Your task to perform on an android device: change notifications settings Image 0: 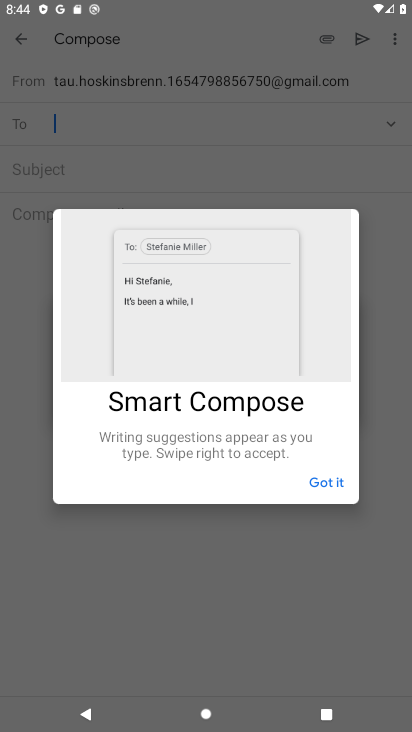
Step 0: press home button
Your task to perform on an android device: change notifications settings Image 1: 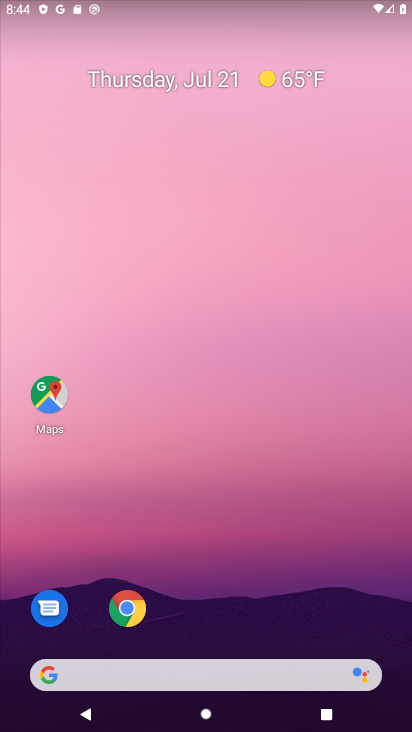
Step 1: drag from (269, 545) to (217, 274)
Your task to perform on an android device: change notifications settings Image 2: 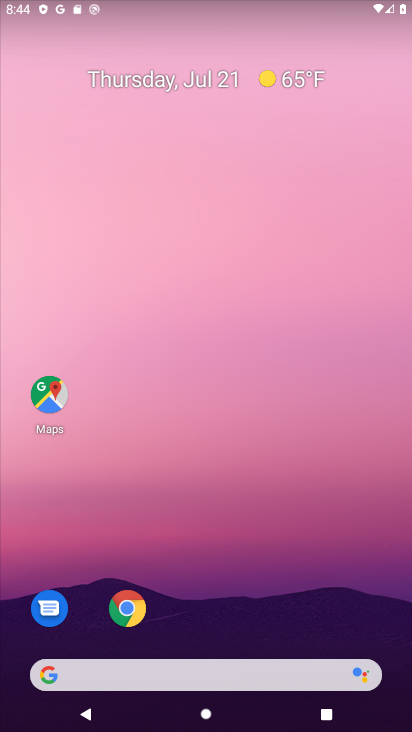
Step 2: drag from (267, 557) to (190, 281)
Your task to perform on an android device: change notifications settings Image 3: 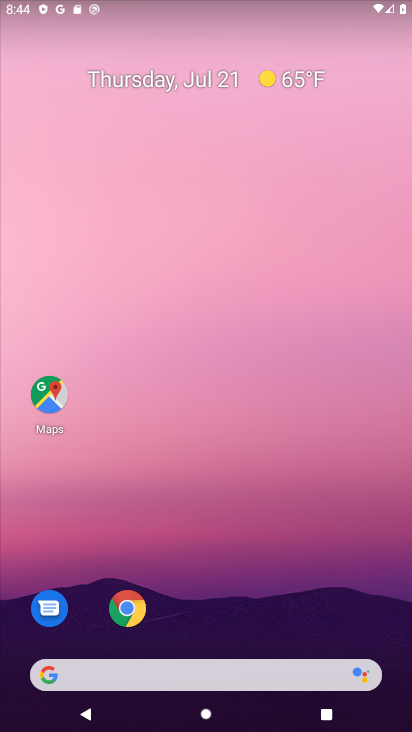
Step 3: drag from (275, 557) to (281, 106)
Your task to perform on an android device: change notifications settings Image 4: 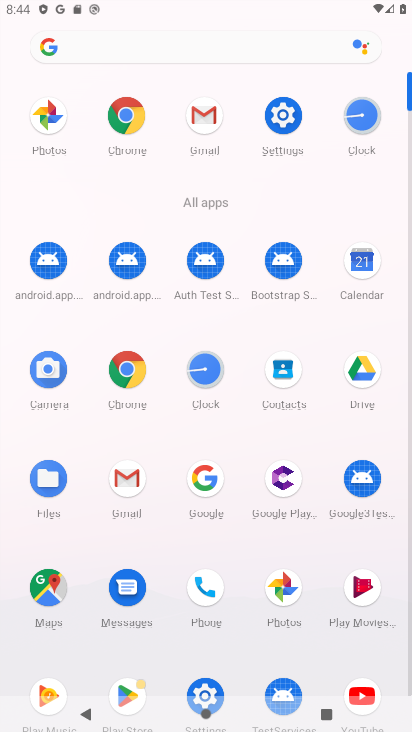
Step 4: click (288, 113)
Your task to perform on an android device: change notifications settings Image 5: 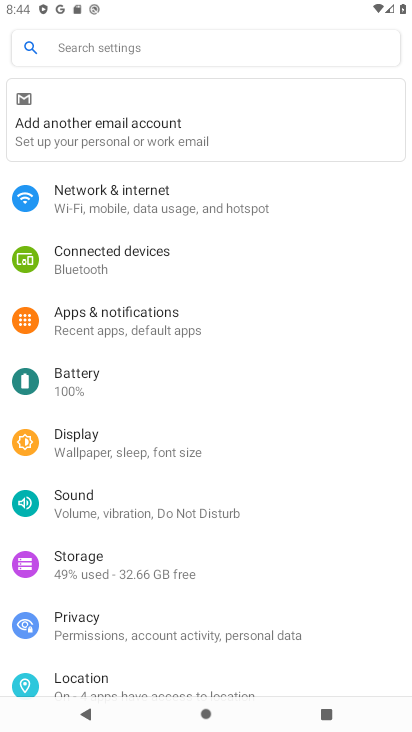
Step 5: click (114, 320)
Your task to perform on an android device: change notifications settings Image 6: 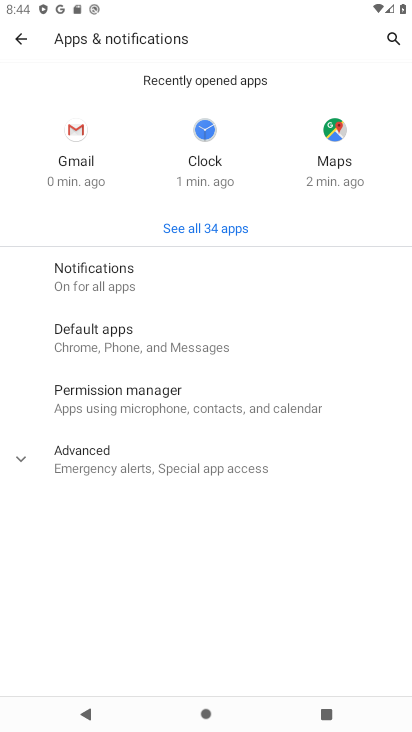
Step 6: click (142, 261)
Your task to perform on an android device: change notifications settings Image 7: 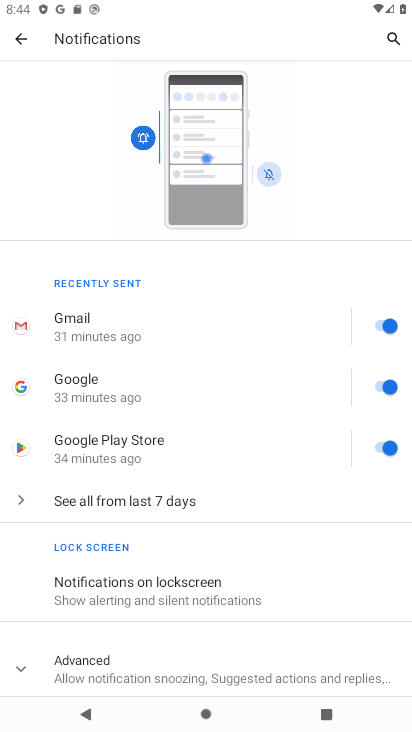
Step 7: click (386, 386)
Your task to perform on an android device: change notifications settings Image 8: 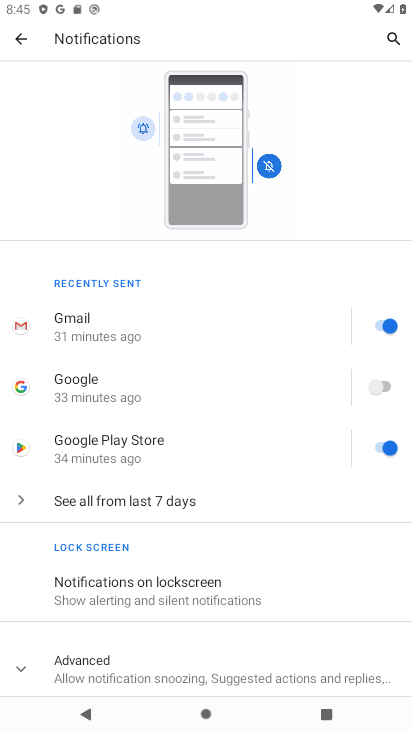
Step 8: task complete